Your task to perform on an android device: check the backup settings in the google photos Image 0: 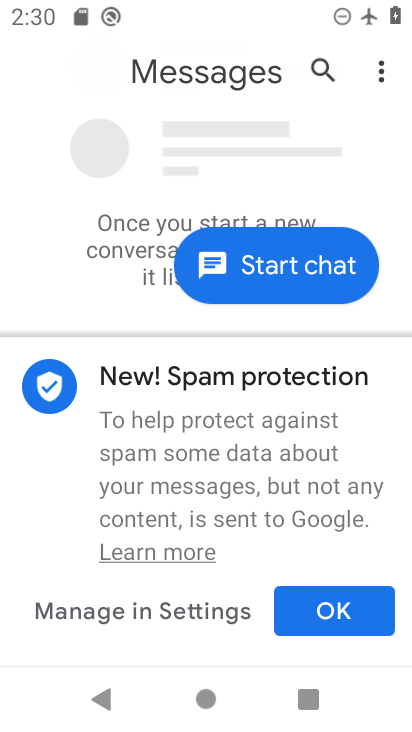
Step 0: press home button
Your task to perform on an android device: check the backup settings in the google photos Image 1: 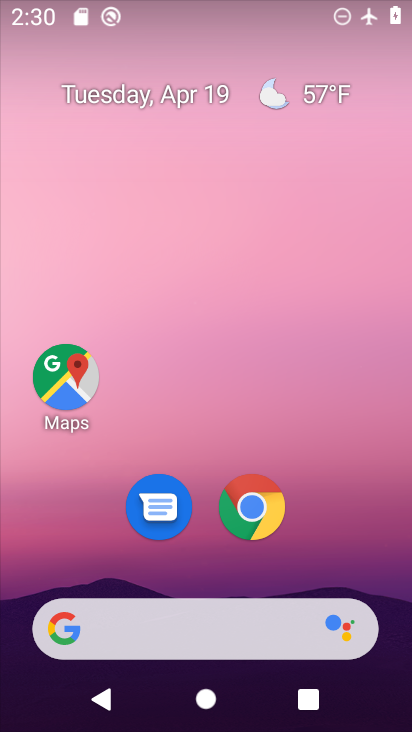
Step 1: drag from (282, 574) to (284, 269)
Your task to perform on an android device: check the backup settings in the google photos Image 2: 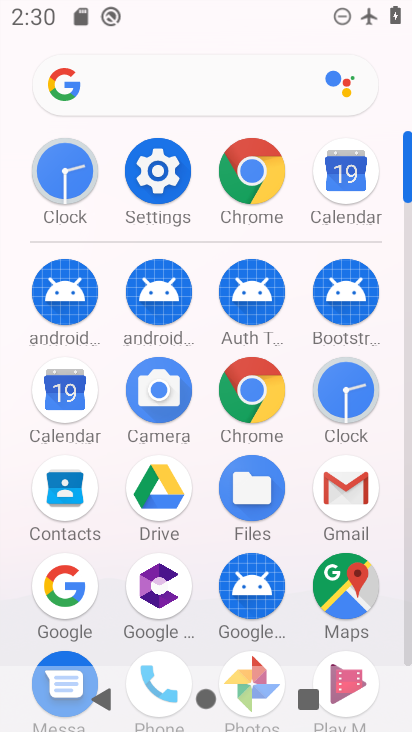
Step 2: click (251, 656)
Your task to perform on an android device: check the backup settings in the google photos Image 3: 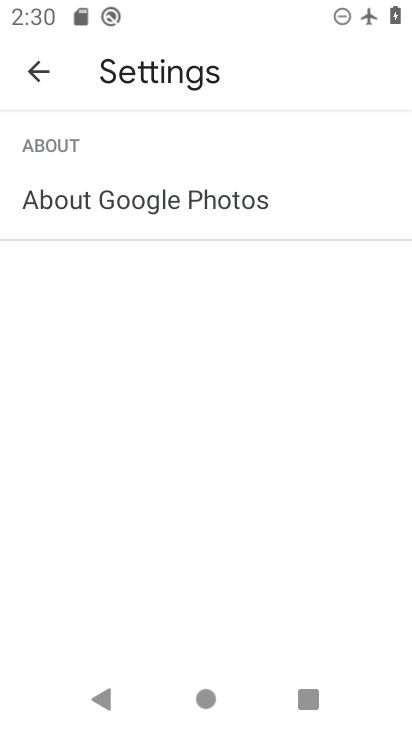
Step 3: click (38, 64)
Your task to perform on an android device: check the backup settings in the google photos Image 4: 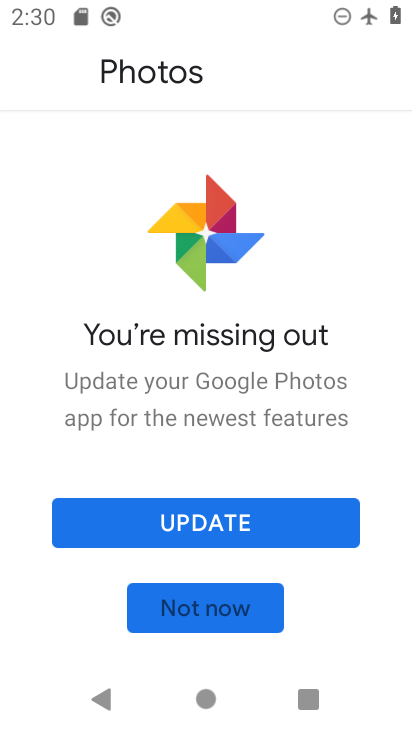
Step 4: click (173, 619)
Your task to perform on an android device: check the backup settings in the google photos Image 5: 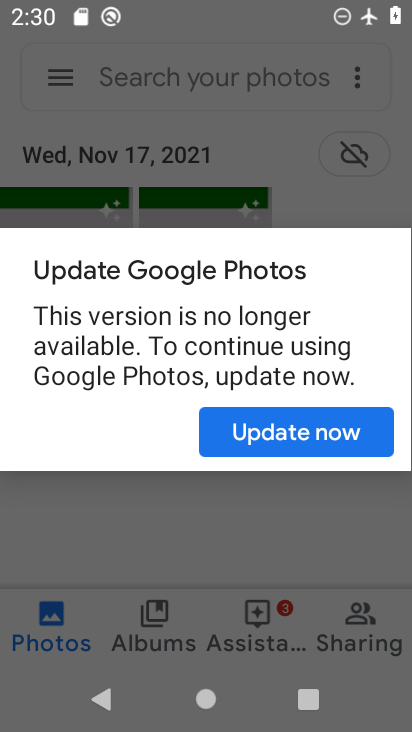
Step 5: click (278, 436)
Your task to perform on an android device: check the backup settings in the google photos Image 6: 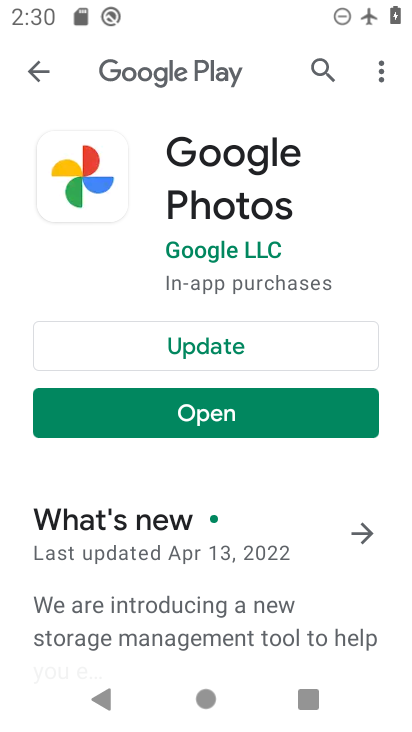
Step 6: click (259, 358)
Your task to perform on an android device: check the backup settings in the google photos Image 7: 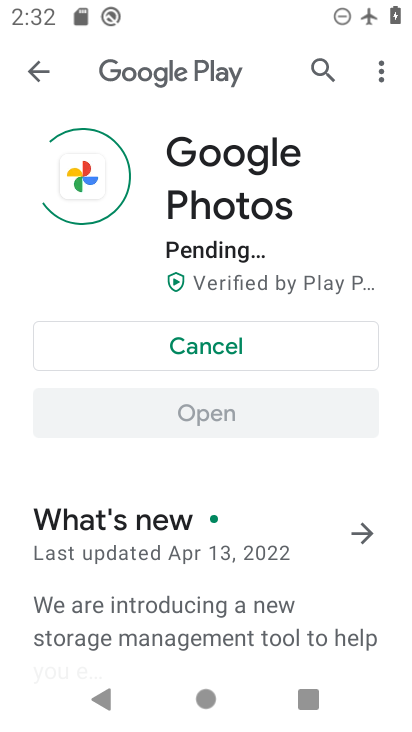
Step 7: task complete